Your task to perform on an android device: Search for acer predator on costco.com, select the first entry, and add it to the cart. Image 0: 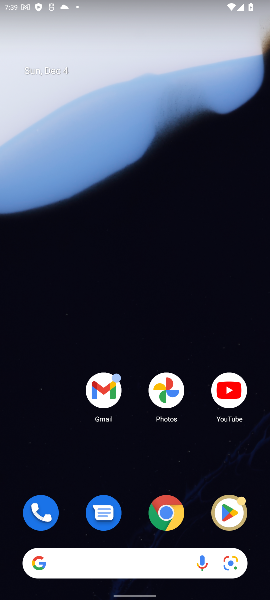
Step 0: click (173, 512)
Your task to perform on an android device: Search for acer predator on costco.com, select the first entry, and add it to the cart. Image 1: 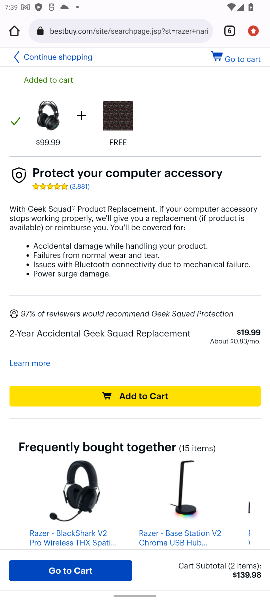
Step 1: click (235, 29)
Your task to perform on an android device: Search for acer predator on costco.com, select the first entry, and add it to the cart. Image 2: 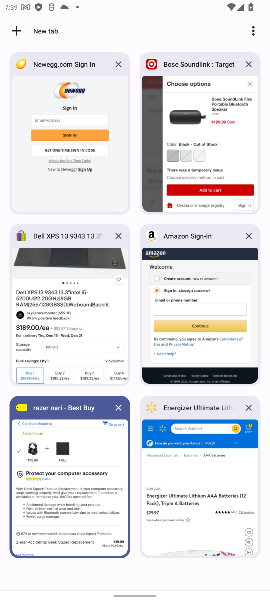
Step 2: click (15, 33)
Your task to perform on an android device: Search for acer predator on costco.com, select the first entry, and add it to the cart. Image 3: 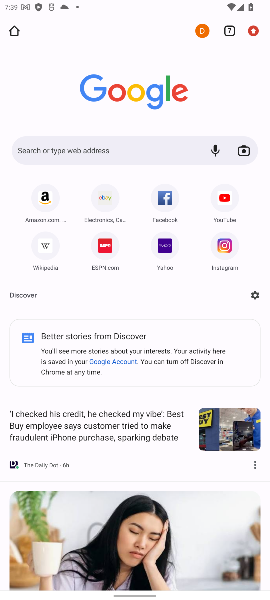
Step 3: click (65, 153)
Your task to perform on an android device: Search for acer predator on costco.com, select the first entry, and add it to the cart. Image 4: 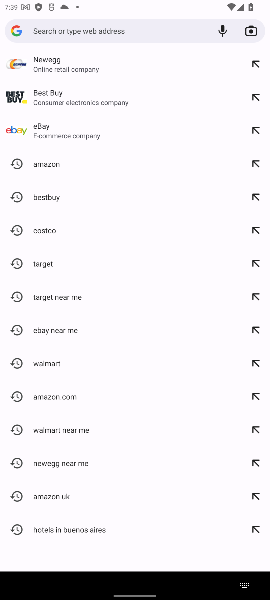
Step 4: type "costco"
Your task to perform on an android device: Search for acer predator on costco.com, select the first entry, and add it to the cart. Image 5: 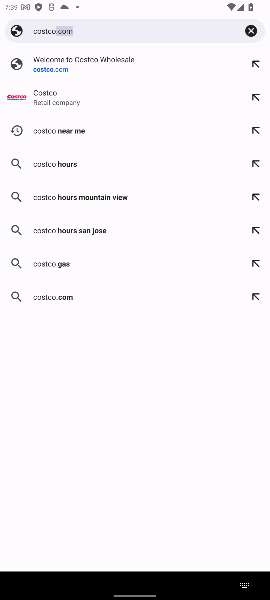
Step 5: click (55, 99)
Your task to perform on an android device: Search for acer predator on costco.com, select the first entry, and add it to the cart. Image 6: 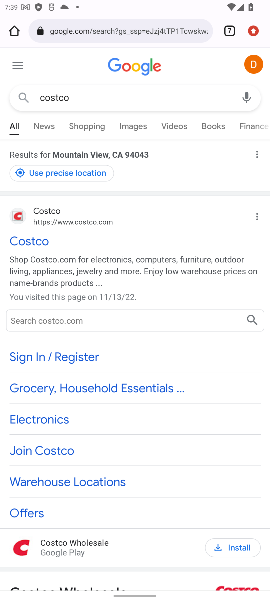
Step 6: click (38, 314)
Your task to perform on an android device: Search for acer predator on costco.com, select the first entry, and add it to the cart. Image 7: 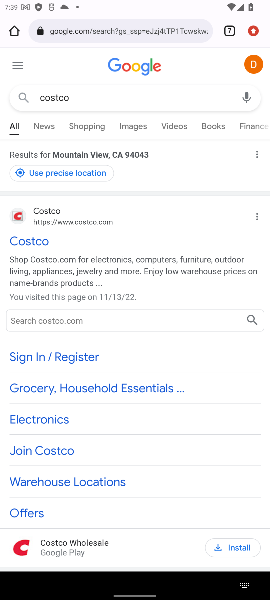
Step 7: type "acer predator"
Your task to perform on an android device: Search for acer predator on costco.com, select the first entry, and add it to the cart. Image 8: 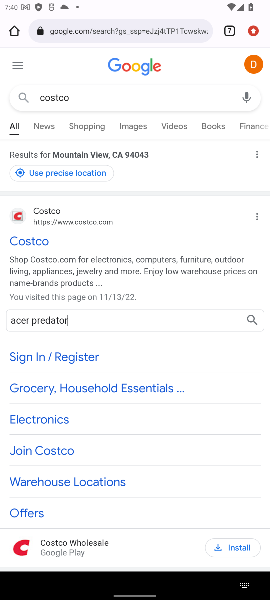
Step 8: click (248, 316)
Your task to perform on an android device: Search for acer predator on costco.com, select the first entry, and add it to the cart. Image 9: 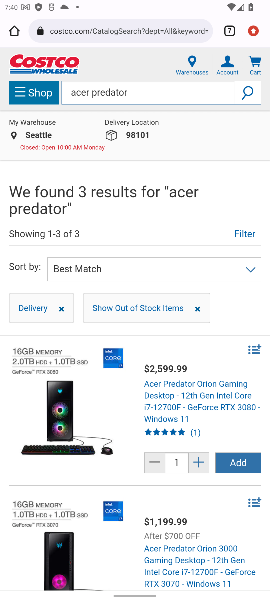
Step 9: click (240, 463)
Your task to perform on an android device: Search for acer predator on costco.com, select the first entry, and add it to the cart. Image 10: 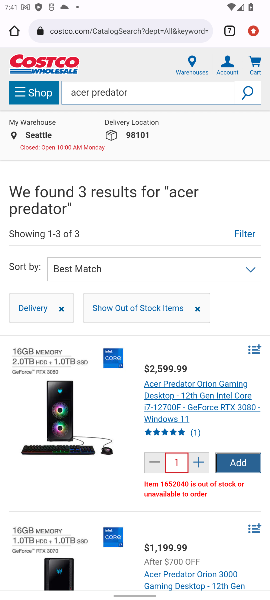
Step 10: drag from (138, 527) to (184, 382)
Your task to perform on an android device: Search for acer predator on costco.com, select the first entry, and add it to the cart. Image 11: 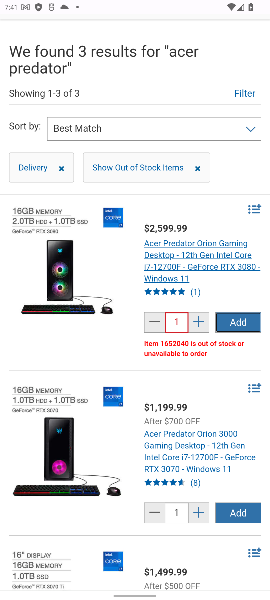
Step 11: click (235, 511)
Your task to perform on an android device: Search for acer predator on costco.com, select the first entry, and add it to the cart. Image 12: 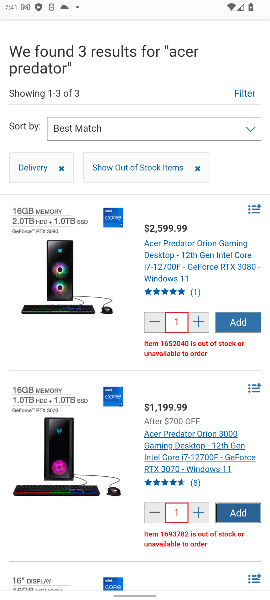
Step 12: drag from (106, 554) to (142, 350)
Your task to perform on an android device: Search for acer predator on costco.com, select the first entry, and add it to the cart. Image 13: 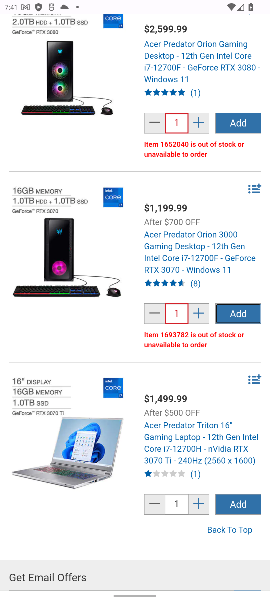
Step 13: click (233, 503)
Your task to perform on an android device: Search for acer predator on costco.com, select the first entry, and add it to the cart. Image 14: 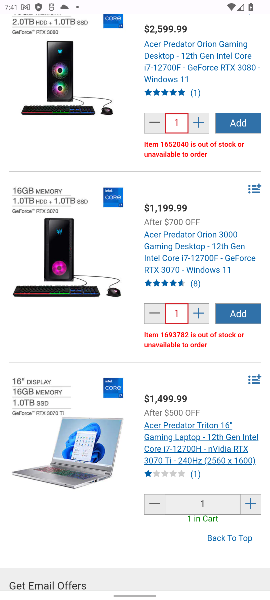
Step 14: task complete